Your task to perform on an android device: When is my next meeting? Image 0: 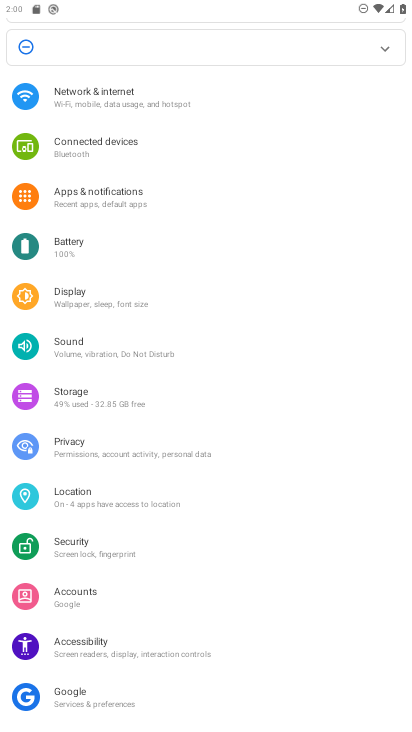
Step 0: press home button
Your task to perform on an android device: When is my next meeting? Image 1: 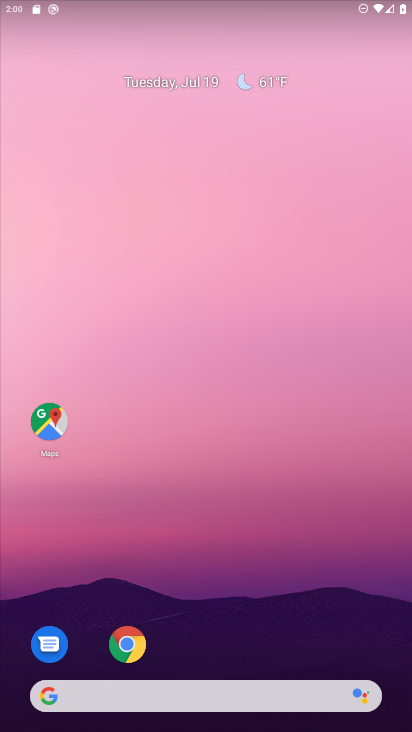
Step 1: drag from (394, 667) to (333, 98)
Your task to perform on an android device: When is my next meeting? Image 2: 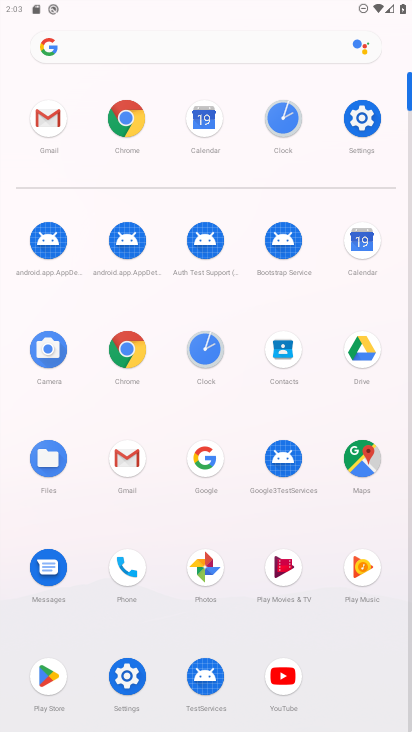
Step 2: click (356, 254)
Your task to perform on an android device: When is my next meeting? Image 3: 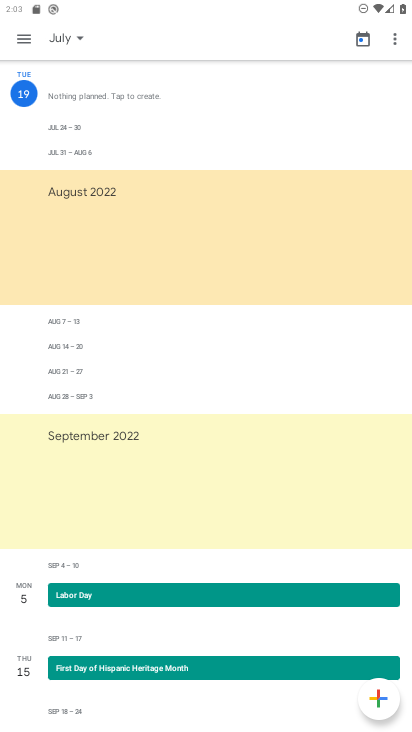
Step 3: click (15, 35)
Your task to perform on an android device: When is my next meeting? Image 4: 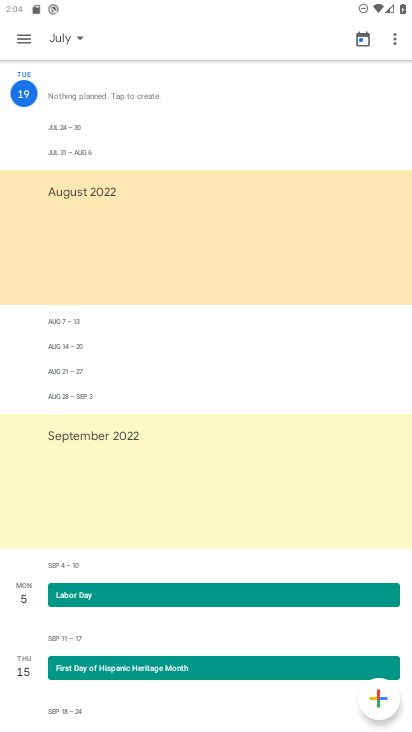
Step 4: click (17, 35)
Your task to perform on an android device: When is my next meeting? Image 5: 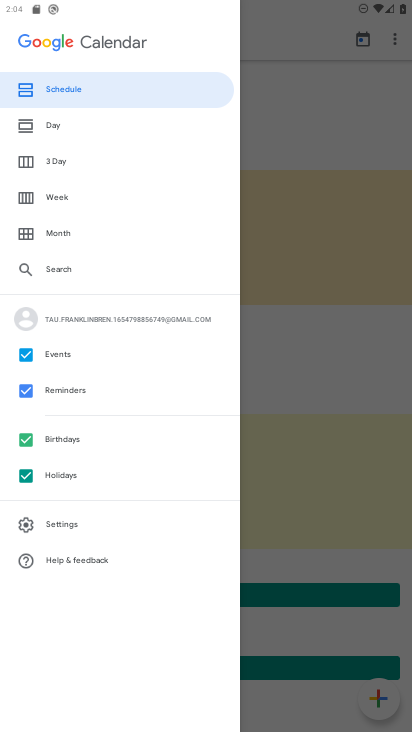
Step 5: click (91, 88)
Your task to perform on an android device: When is my next meeting? Image 6: 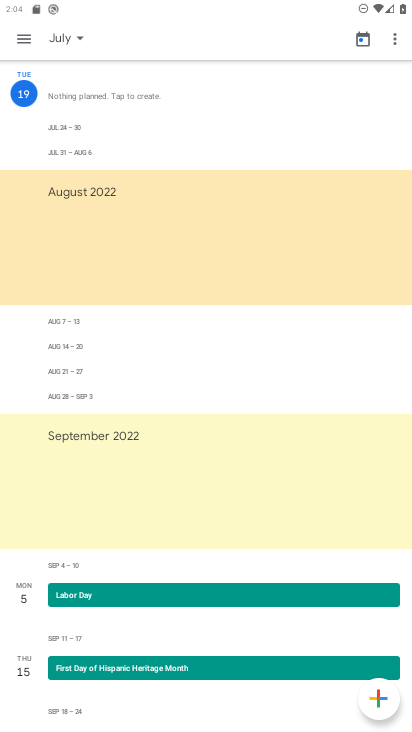
Step 6: task complete